Your task to perform on an android device: turn on data saver in the chrome app Image 0: 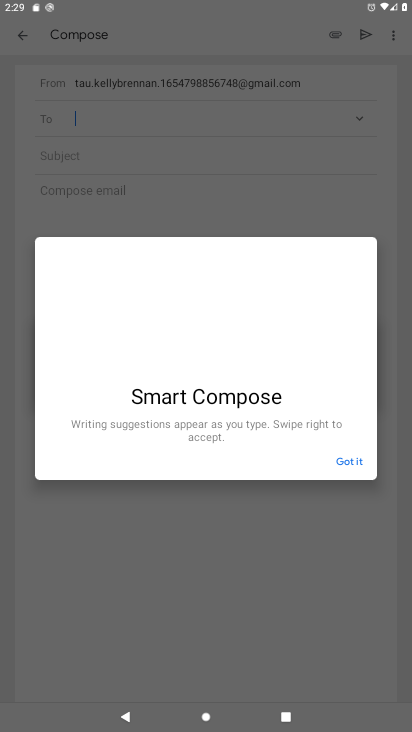
Step 0: press home button
Your task to perform on an android device: turn on data saver in the chrome app Image 1: 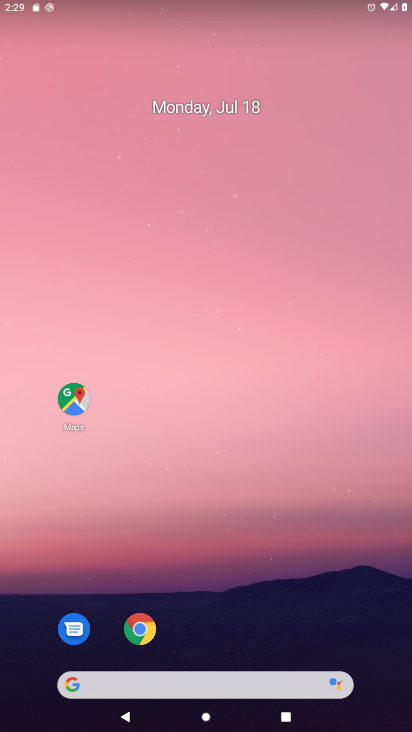
Step 1: click (138, 631)
Your task to perform on an android device: turn on data saver in the chrome app Image 2: 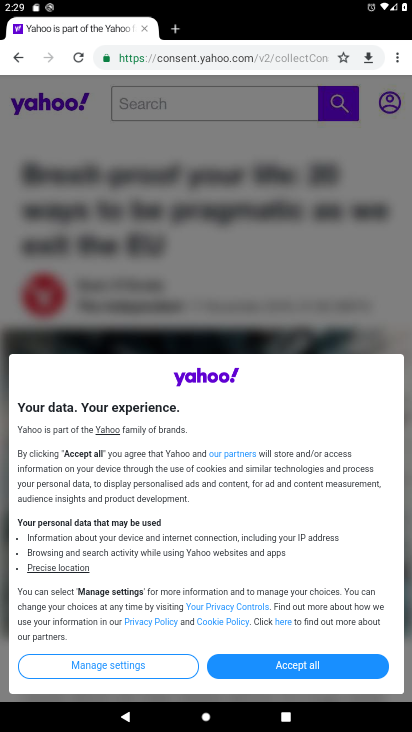
Step 2: click (396, 56)
Your task to perform on an android device: turn on data saver in the chrome app Image 3: 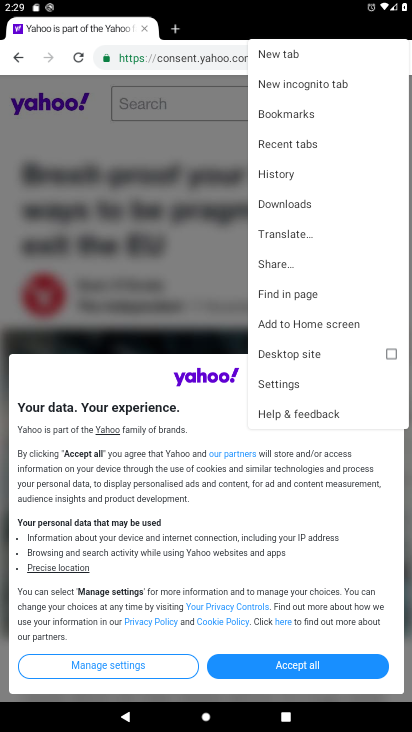
Step 3: click (282, 386)
Your task to perform on an android device: turn on data saver in the chrome app Image 4: 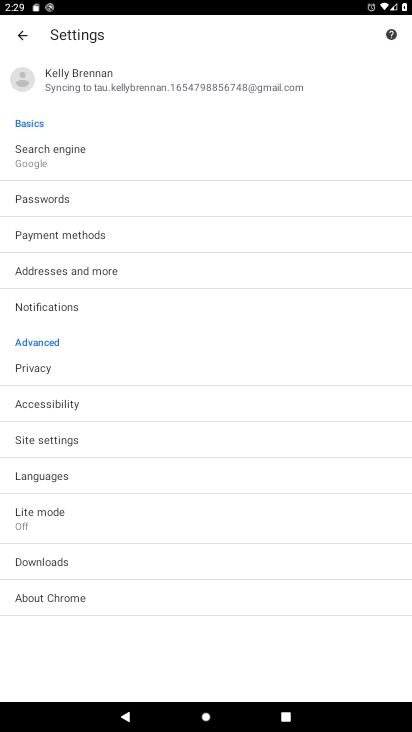
Step 4: click (35, 526)
Your task to perform on an android device: turn on data saver in the chrome app Image 5: 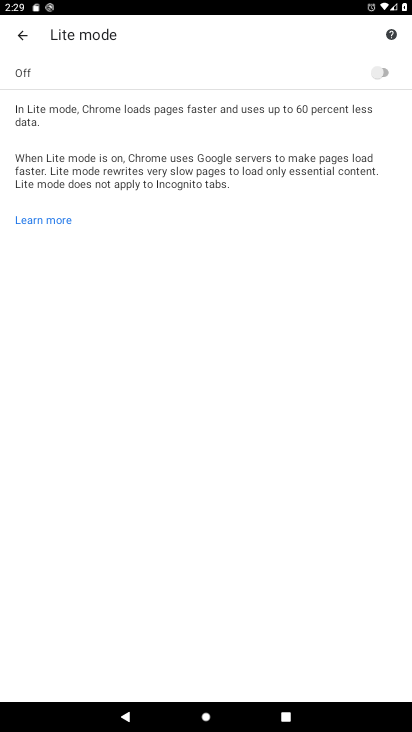
Step 5: click (385, 75)
Your task to perform on an android device: turn on data saver in the chrome app Image 6: 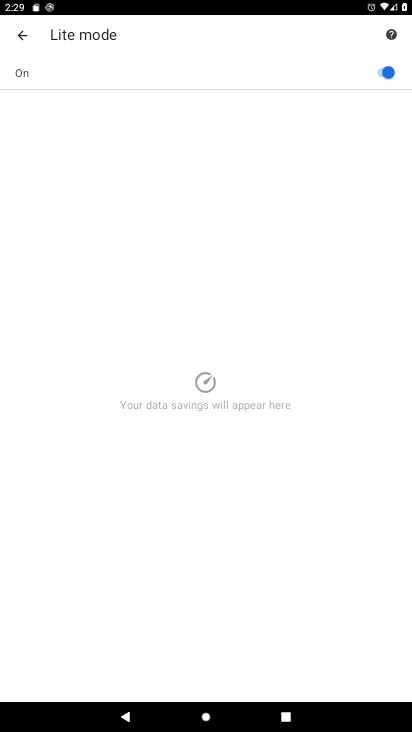
Step 6: task complete